Your task to perform on an android device: Open Chrome and go to settings Image 0: 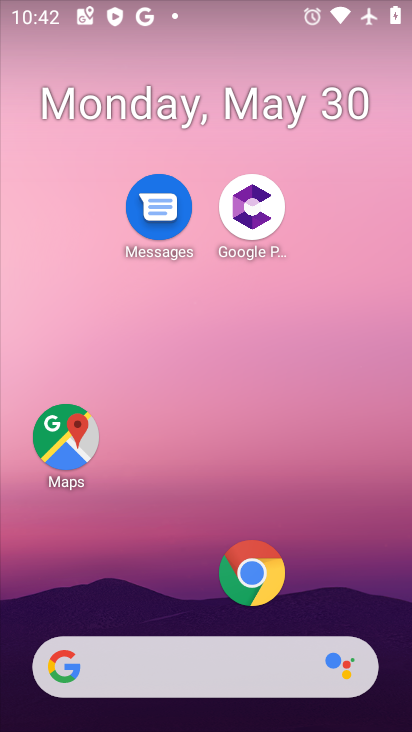
Step 0: drag from (192, 677) to (246, 166)
Your task to perform on an android device: Open Chrome and go to settings Image 1: 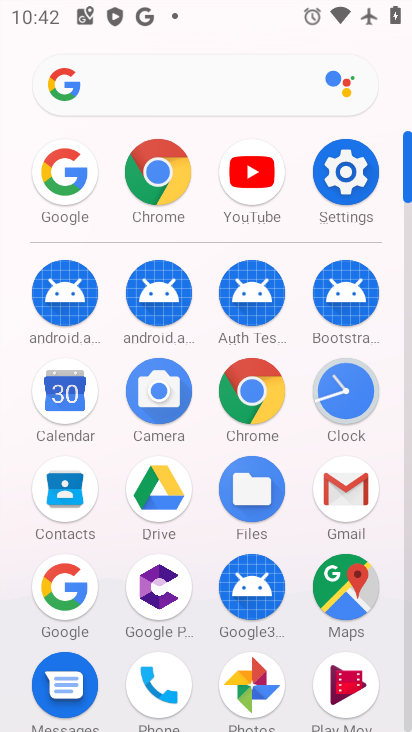
Step 1: click (265, 392)
Your task to perform on an android device: Open Chrome and go to settings Image 2: 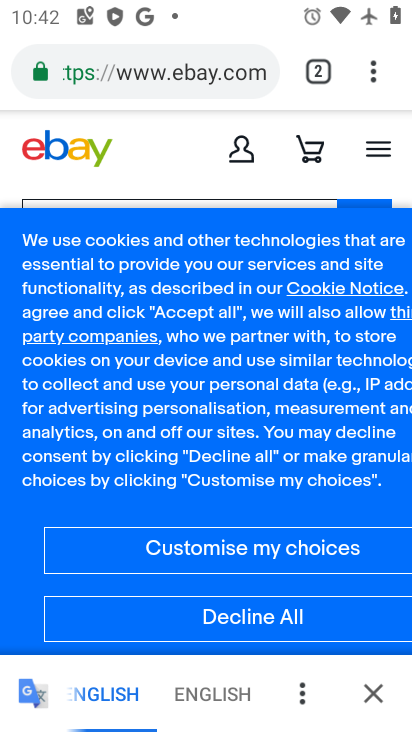
Step 2: click (377, 75)
Your task to perform on an android device: Open Chrome and go to settings Image 3: 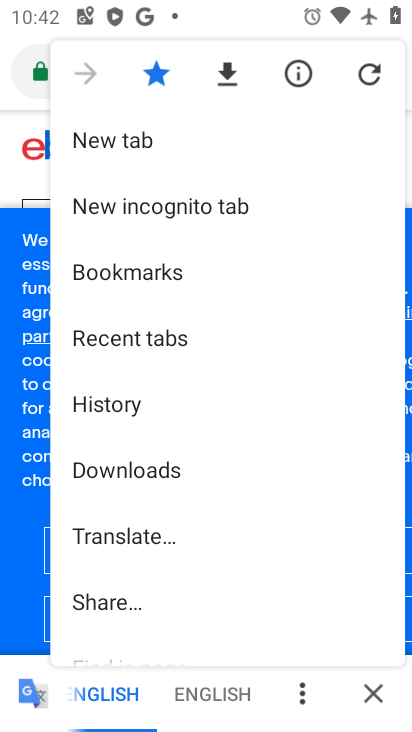
Step 3: drag from (192, 564) to (277, 198)
Your task to perform on an android device: Open Chrome and go to settings Image 4: 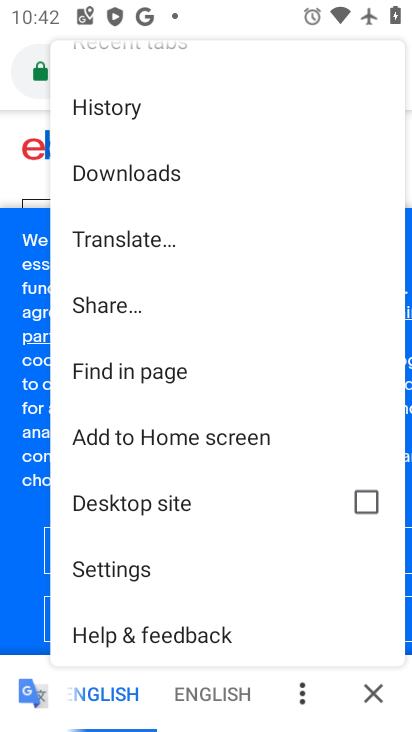
Step 4: click (141, 577)
Your task to perform on an android device: Open Chrome and go to settings Image 5: 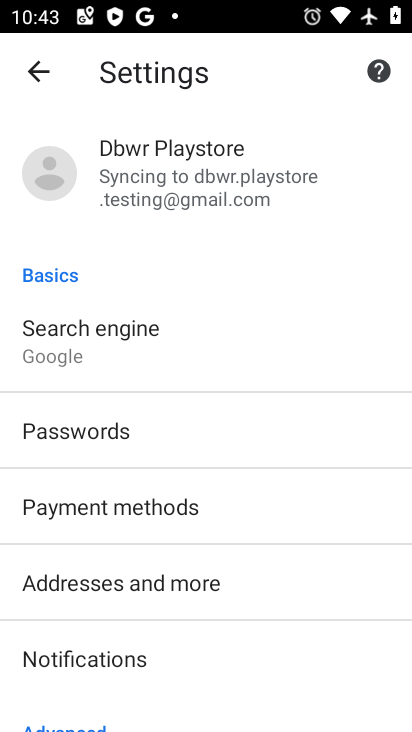
Step 5: task complete